Your task to perform on an android device: set the stopwatch Image 0: 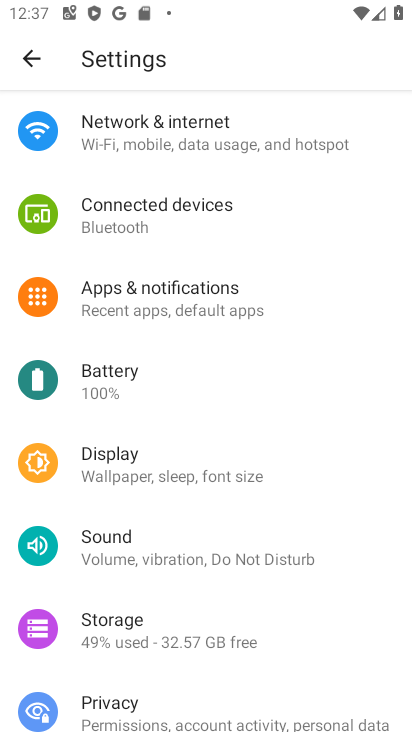
Step 0: drag from (222, 685) to (139, 126)
Your task to perform on an android device: set the stopwatch Image 1: 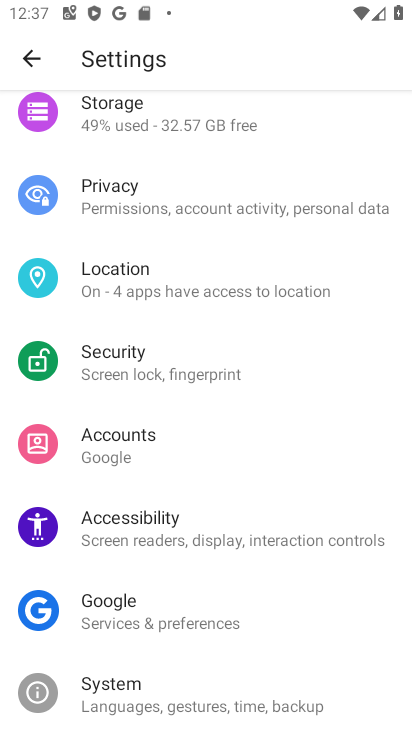
Step 1: press home button
Your task to perform on an android device: set the stopwatch Image 2: 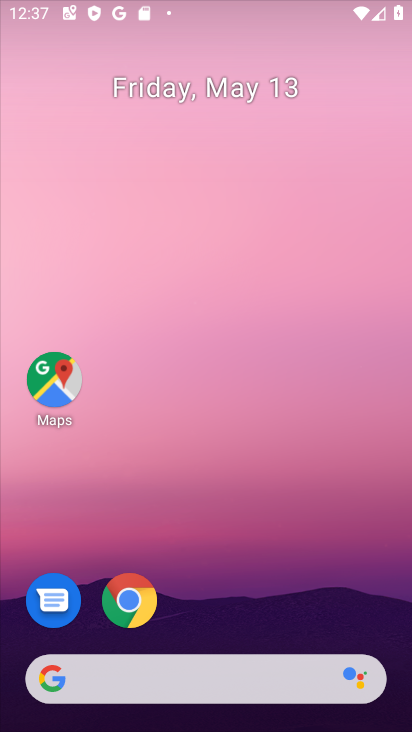
Step 2: drag from (190, 511) to (225, 14)
Your task to perform on an android device: set the stopwatch Image 3: 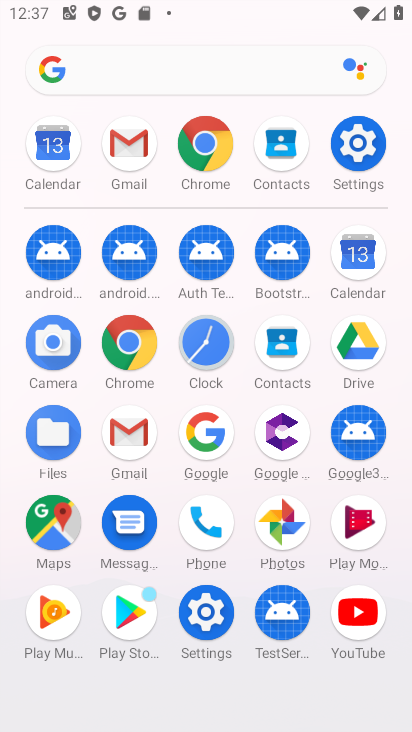
Step 3: click (210, 332)
Your task to perform on an android device: set the stopwatch Image 4: 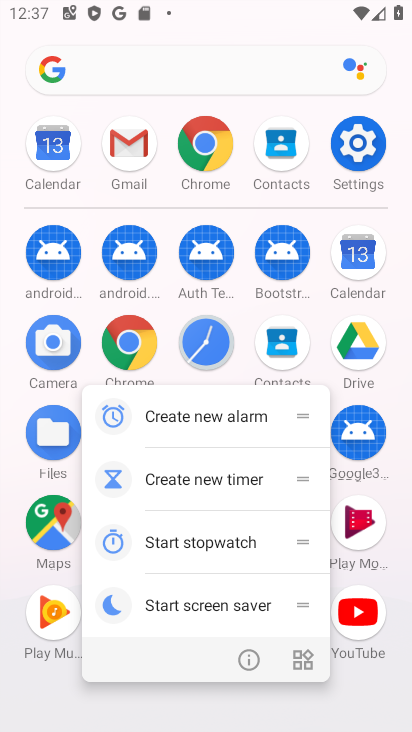
Step 4: click (268, 648)
Your task to perform on an android device: set the stopwatch Image 5: 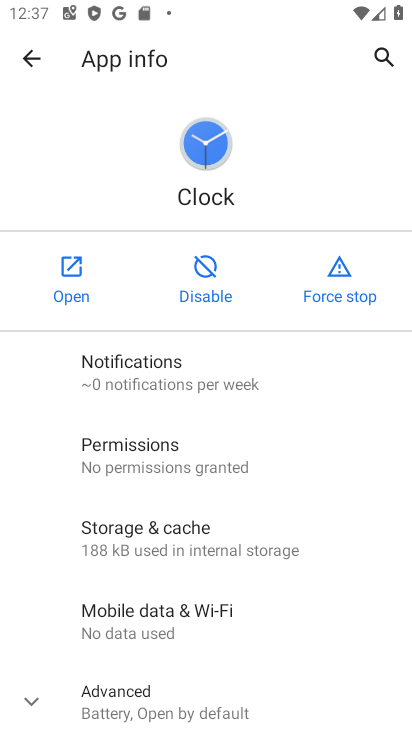
Step 5: click (36, 253)
Your task to perform on an android device: set the stopwatch Image 6: 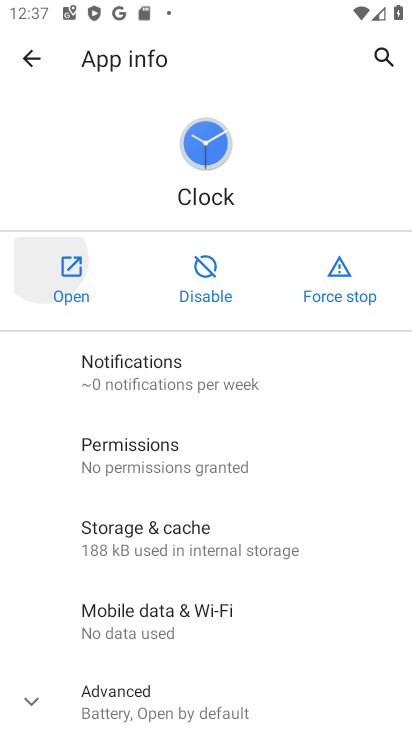
Step 6: click (76, 263)
Your task to perform on an android device: set the stopwatch Image 7: 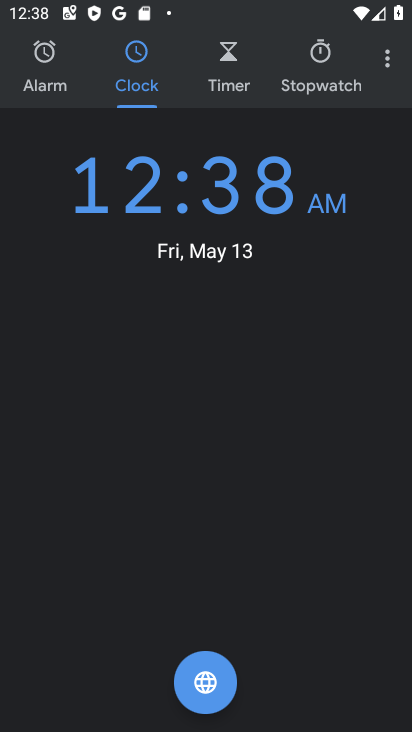
Step 7: click (239, 66)
Your task to perform on an android device: set the stopwatch Image 8: 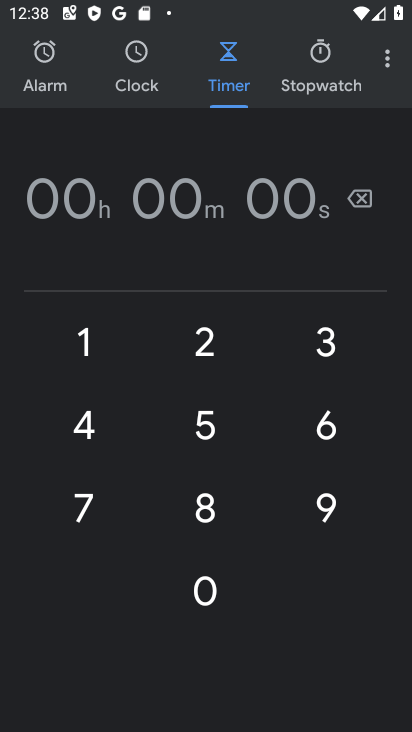
Step 8: click (325, 70)
Your task to perform on an android device: set the stopwatch Image 9: 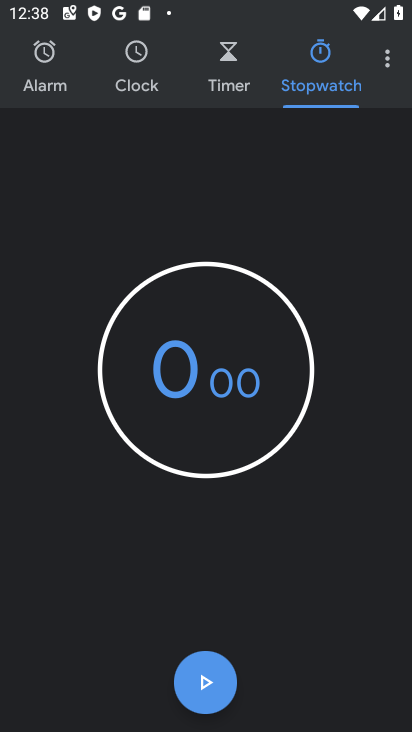
Step 9: click (212, 666)
Your task to perform on an android device: set the stopwatch Image 10: 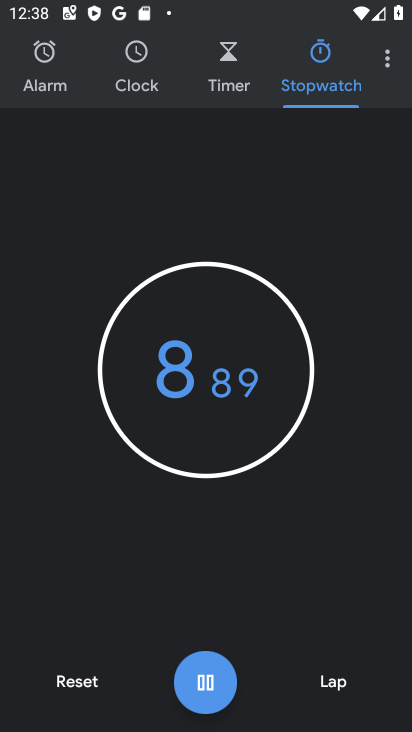
Step 10: click (80, 677)
Your task to perform on an android device: set the stopwatch Image 11: 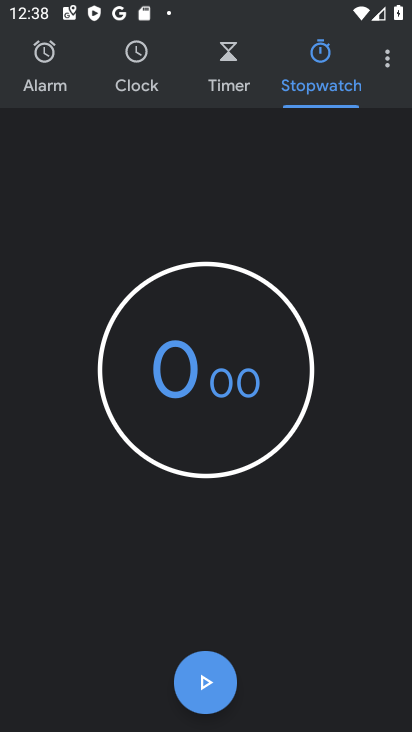
Step 11: click (210, 681)
Your task to perform on an android device: set the stopwatch Image 12: 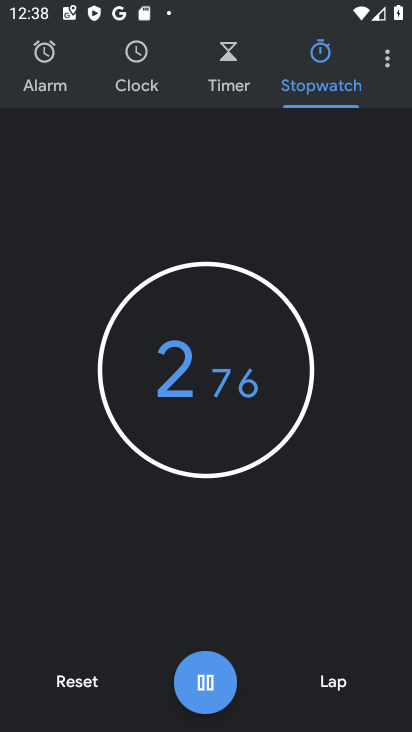
Step 12: click (222, 698)
Your task to perform on an android device: set the stopwatch Image 13: 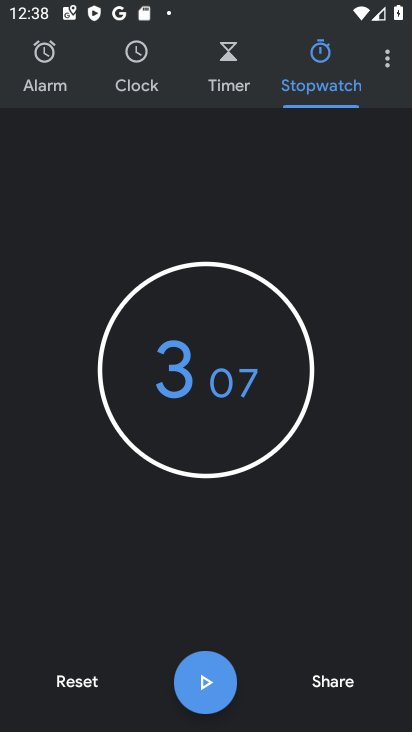
Step 13: task complete